Your task to perform on an android device: turn on notifications settings in the gmail app Image 0: 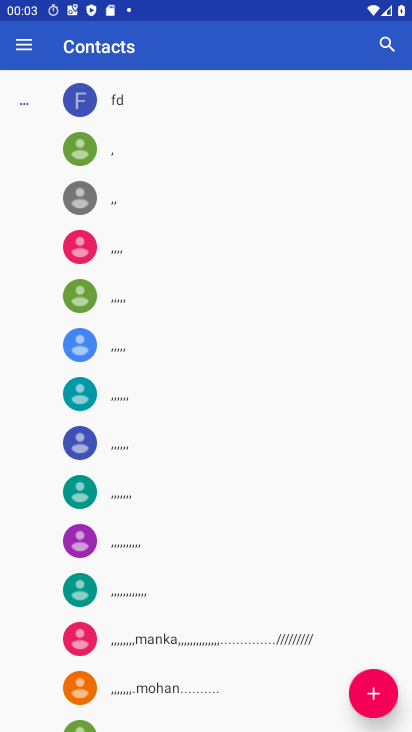
Step 0: press home button
Your task to perform on an android device: turn on notifications settings in the gmail app Image 1: 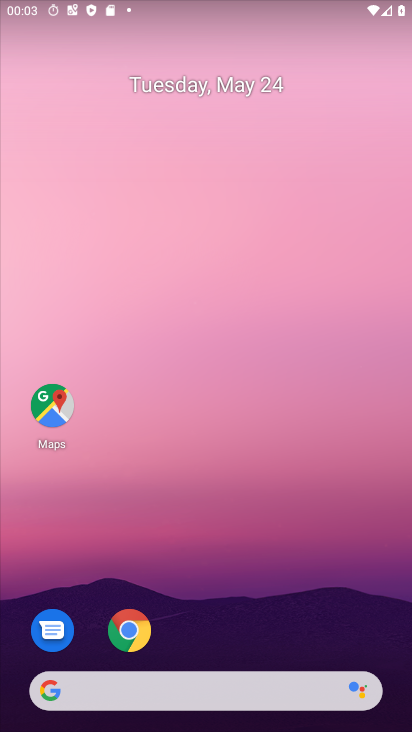
Step 1: drag from (248, 653) to (265, 2)
Your task to perform on an android device: turn on notifications settings in the gmail app Image 2: 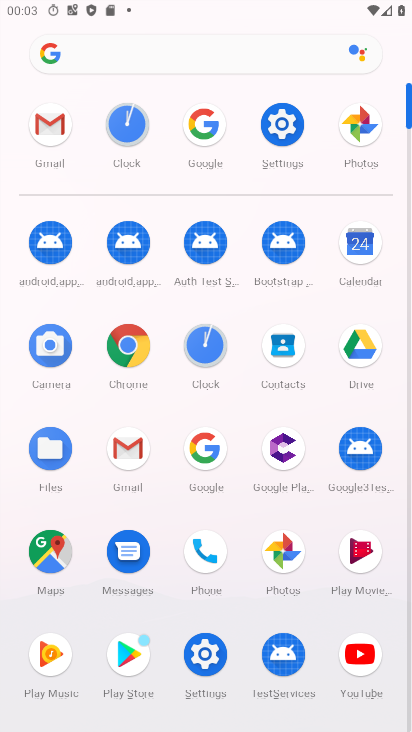
Step 2: click (44, 129)
Your task to perform on an android device: turn on notifications settings in the gmail app Image 3: 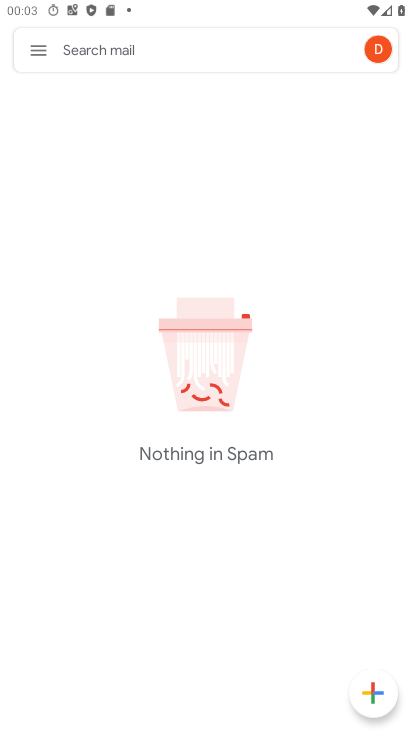
Step 3: click (29, 45)
Your task to perform on an android device: turn on notifications settings in the gmail app Image 4: 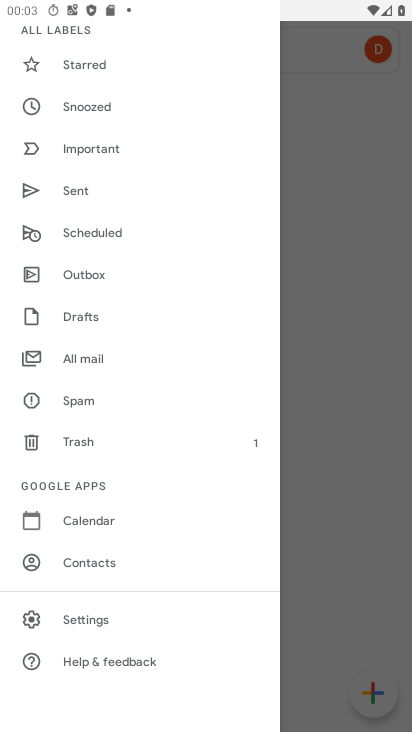
Step 4: click (84, 615)
Your task to perform on an android device: turn on notifications settings in the gmail app Image 5: 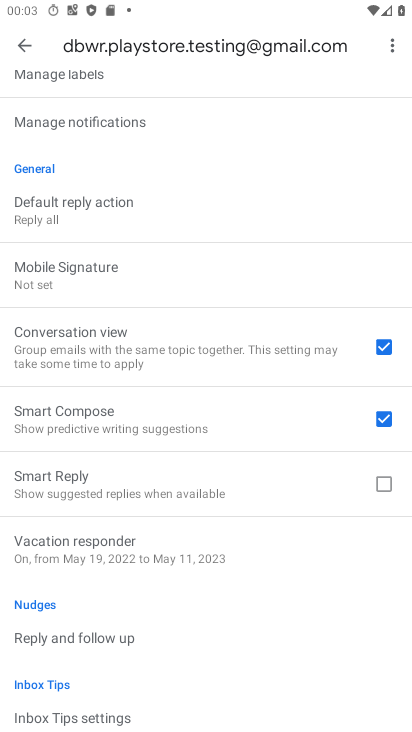
Step 5: click (84, 126)
Your task to perform on an android device: turn on notifications settings in the gmail app Image 6: 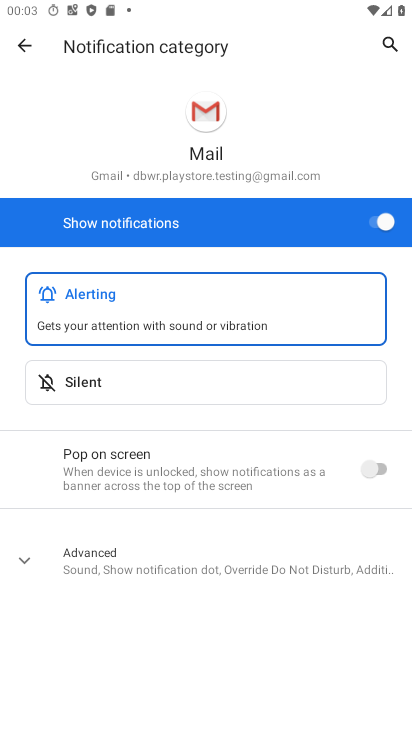
Step 6: task complete